Your task to perform on an android device: Go to settings Image 0: 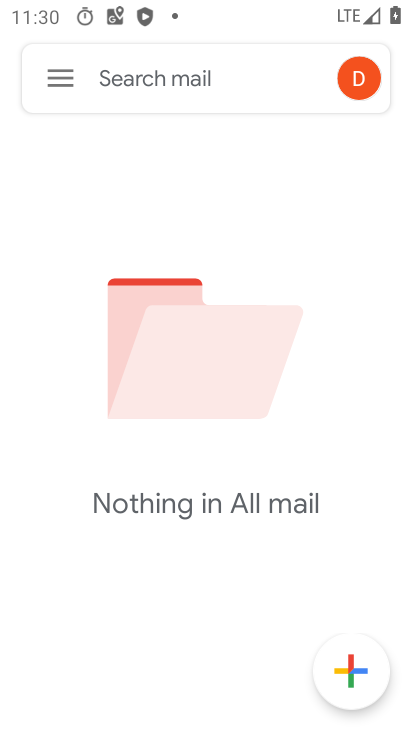
Step 0: press home button
Your task to perform on an android device: Go to settings Image 1: 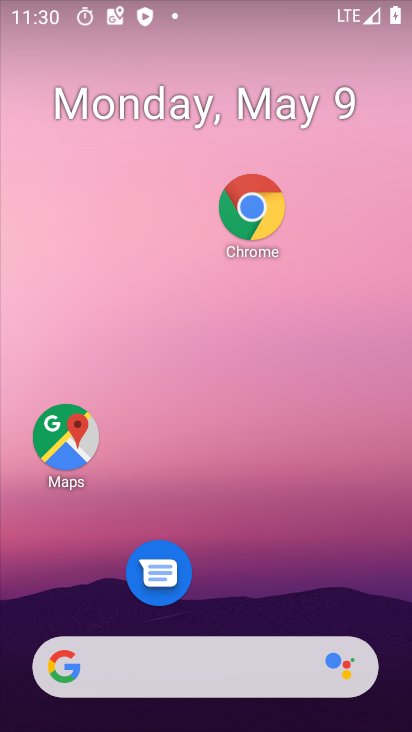
Step 1: drag from (315, 604) to (220, 2)
Your task to perform on an android device: Go to settings Image 2: 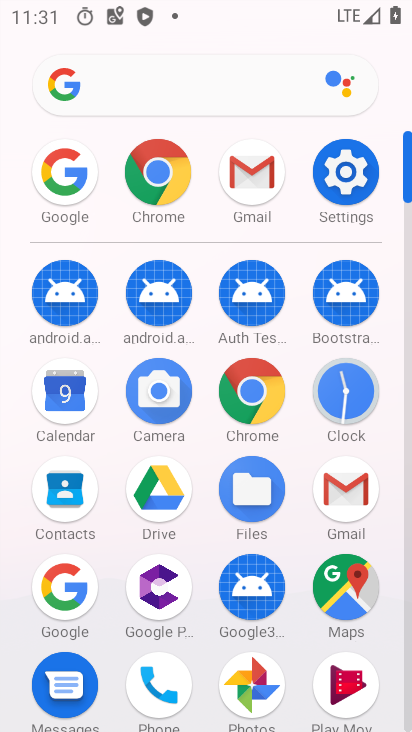
Step 2: click (346, 214)
Your task to perform on an android device: Go to settings Image 3: 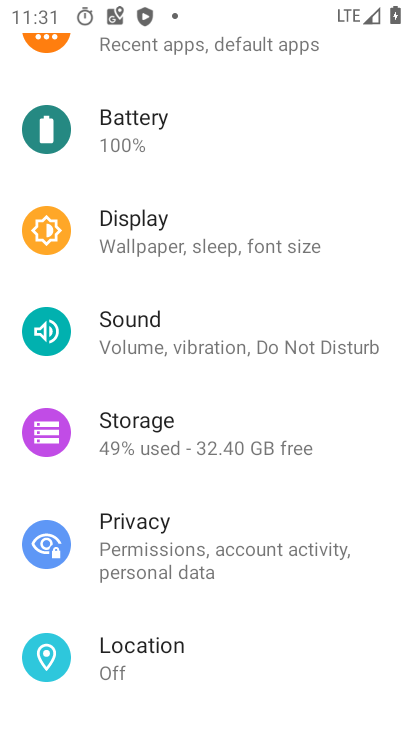
Step 3: task complete